Your task to perform on an android device: check google app version Image 0: 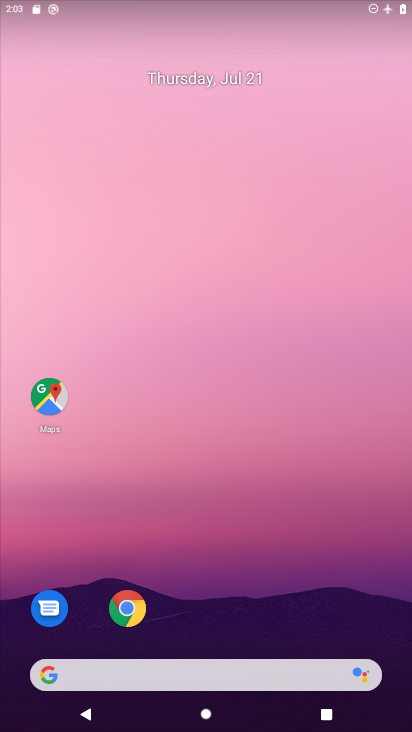
Step 0: drag from (223, 636) to (232, 120)
Your task to perform on an android device: check google app version Image 1: 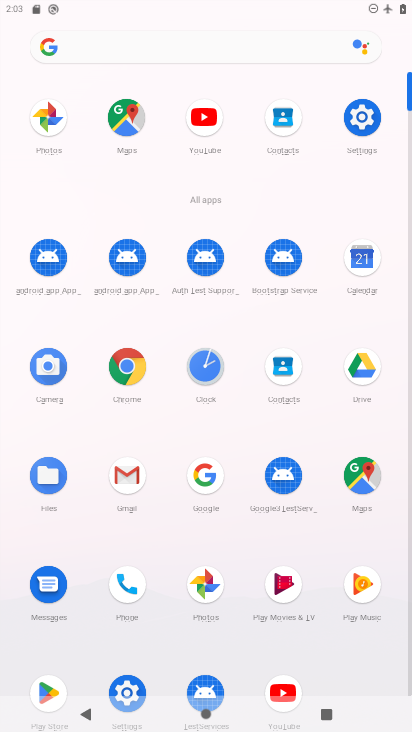
Step 1: click (205, 474)
Your task to perform on an android device: check google app version Image 2: 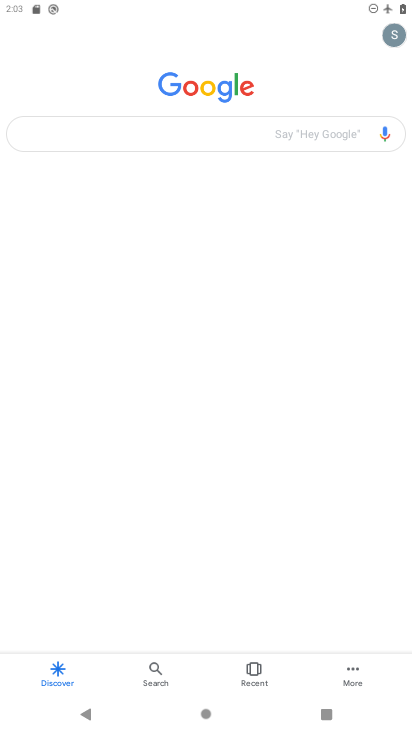
Step 2: click (352, 666)
Your task to perform on an android device: check google app version Image 3: 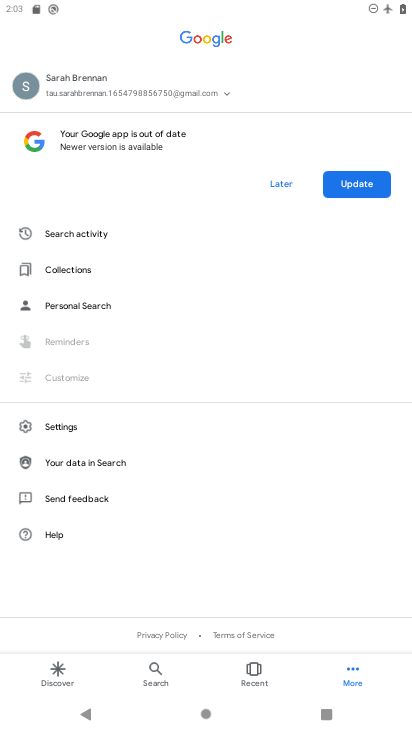
Step 3: click (58, 424)
Your task to perform on an android device: check google app version Image 4: 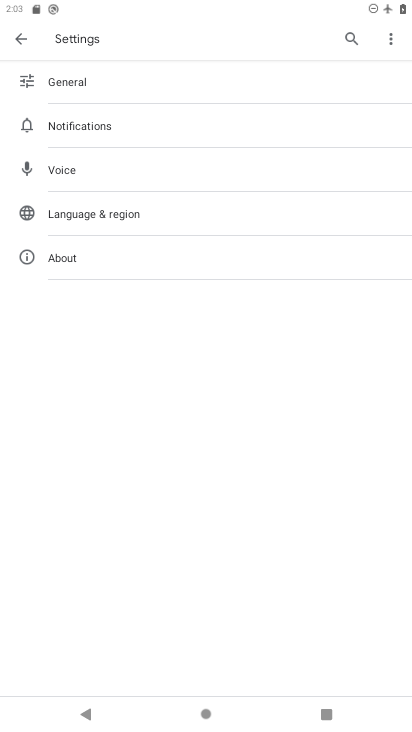
Step 4: click (61, 250)
Your task to perform on an android device: check google app version Image 5: 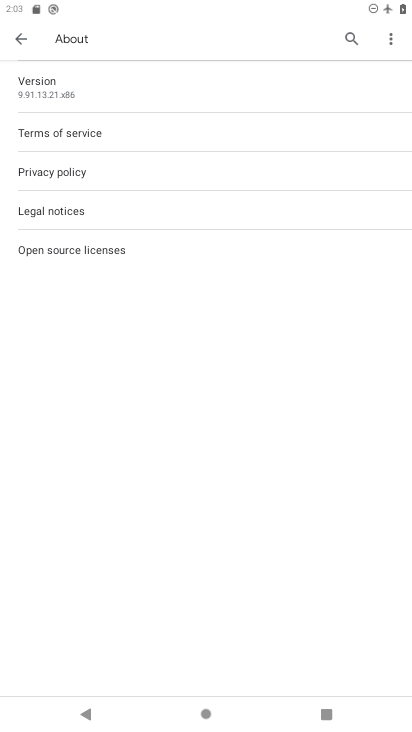
Step 5: click (35, 83)
Your task to perform on an android device: check google app version Image 6: 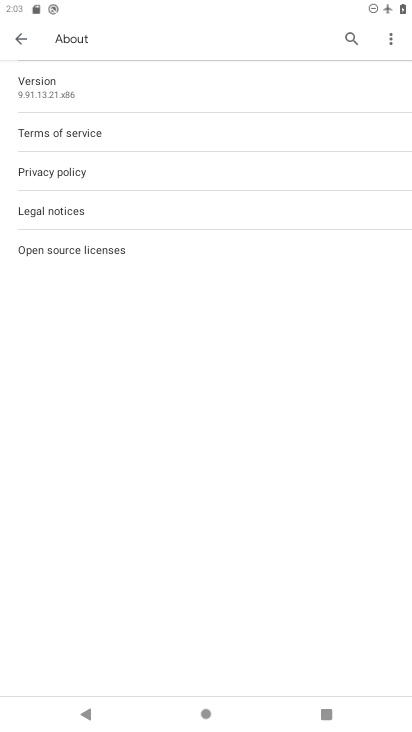
Step 6: task complete